Your task to perform on an android device: Open Youtube and go to the subscriptions tab Image 0: 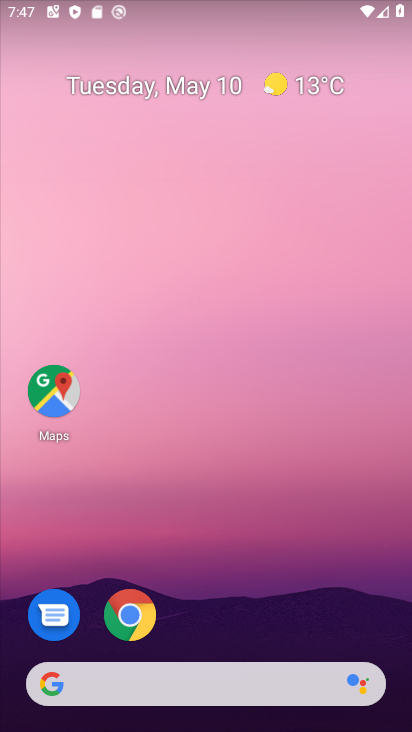
Step 0: drag from (233, 557) to (198, 56)
Your task to perform on an android device: Open Youtube and go to the subscriptions tab Image 1: 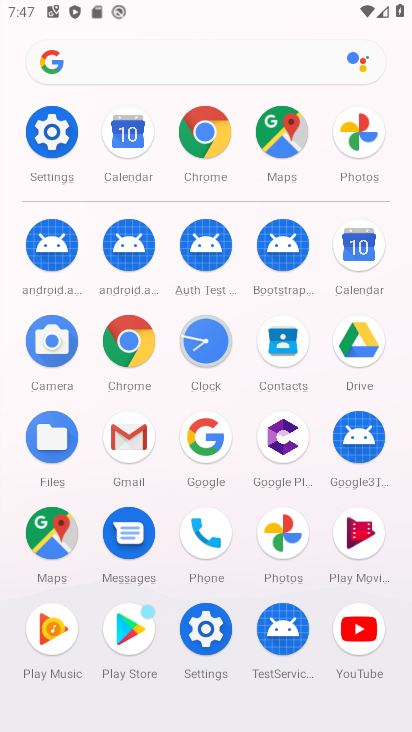
Step 1: click (355, 632)
Your task to perform on an android device: Open Youtube and go to the subscriptions tab Image 2: 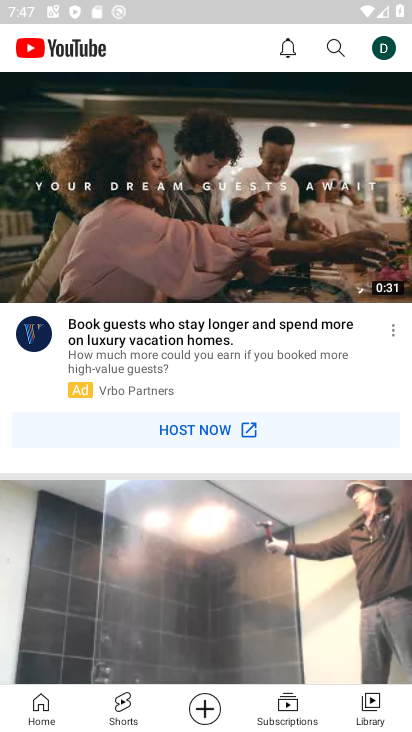
Step 2: click (286, 704)
Your task to perform on an android device: Open Youtube and go to the subscriptions tab Image 3: 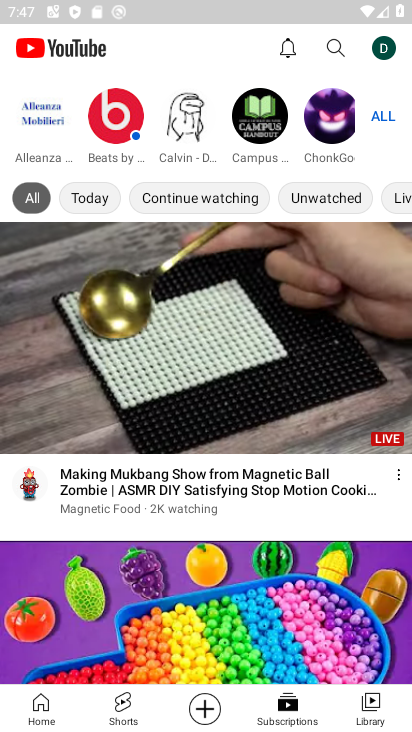
Step 3: task complete